Your task to perform on an android device: Open the calendar app, open the side menu, and click the "Day" option Image 0: 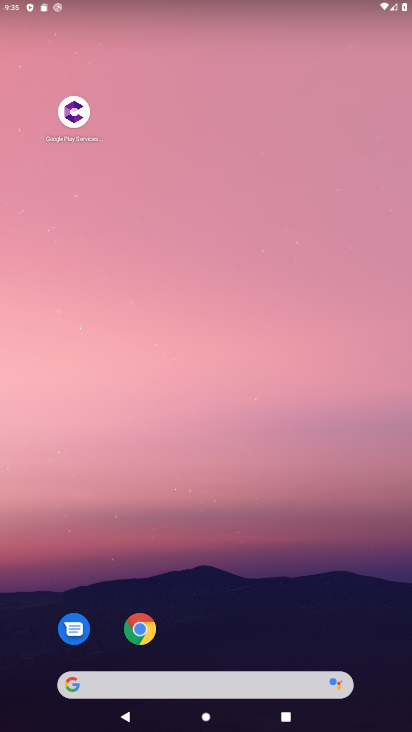
Step 0: drag from (275, 599) to (251, 1)
Your task to perform on an android device: Open the calendar app, open the side menu, and click the "Day" option Image 1: 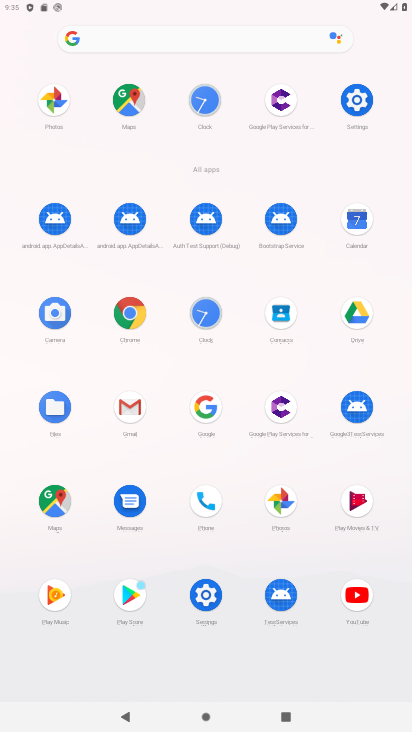
Step 1: click (364, 230)
Your task to perform on an android device: Open the calendar app, open the side menu, and click the "Day" option Image 2: 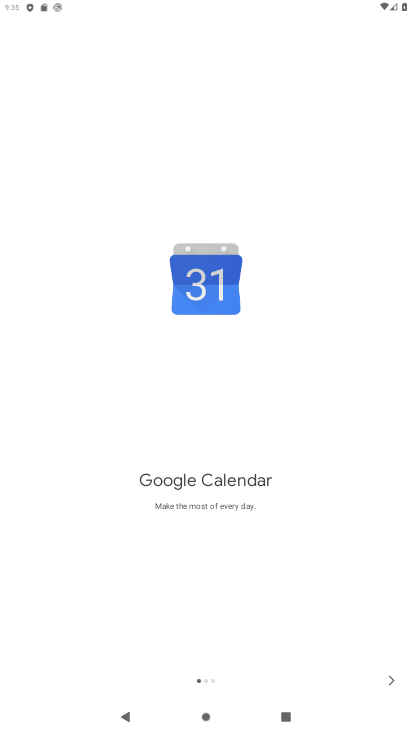
Step 2: click (388, 676)
Your task to perform on an android device: Open the calendar app, open the side menu, and click the "Day" option Image 3: 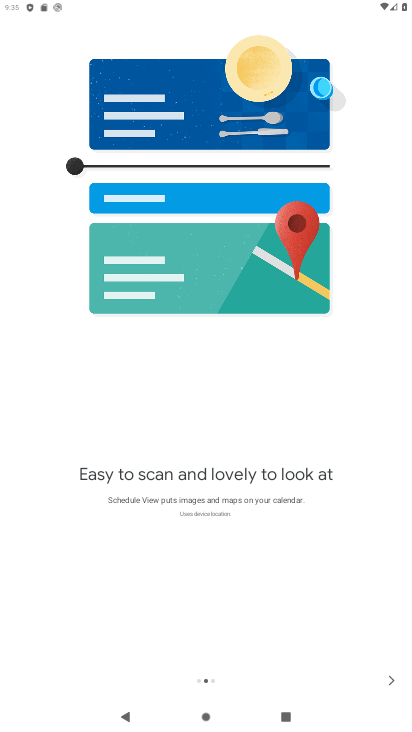
Step 3: click (388, 676)
Your task to perform on an android device: Open the calendar app, open the side menu, and click the "Day" option Image 4: 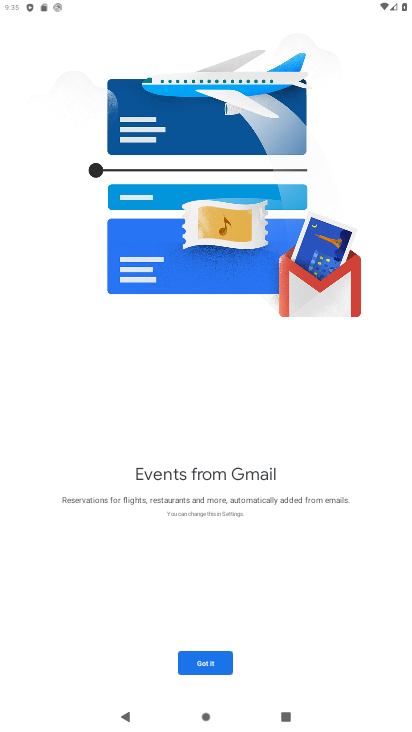
Step 4: click (194, 666)
Your task to perform on an android device: Open the calendar app, open the side menu, and click the "Day" option Image 5: 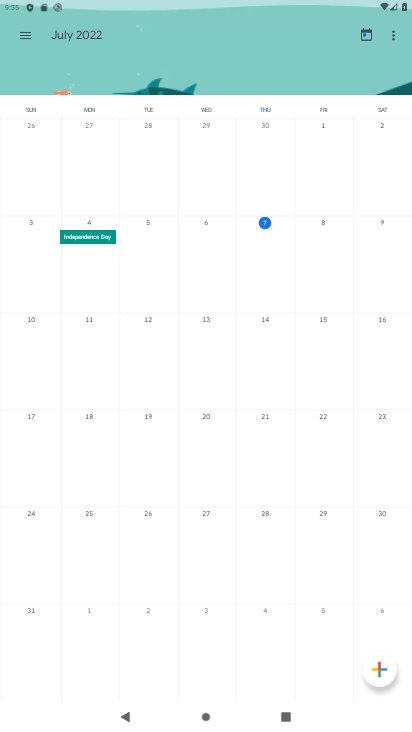
Step 5: click (17, 33)
Your task to perform on an android device: Open the calendar app, open the side menu, and click the "Day" option Image 6: 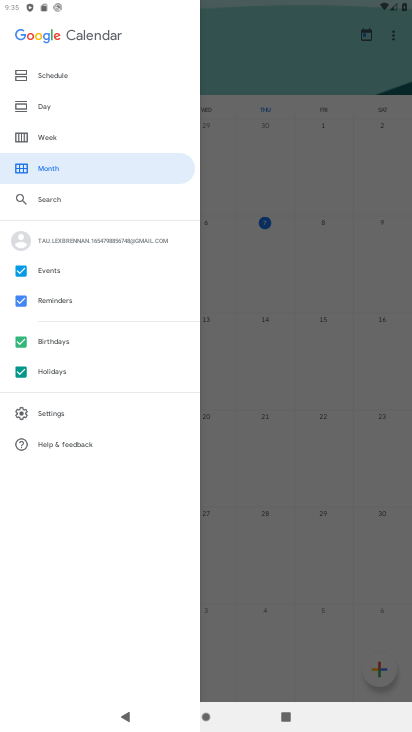
Step 6: click (76, 103)
Your task to perform on an android device: Open the calendar app, open the side menu, and click the "Day" option Image 7: 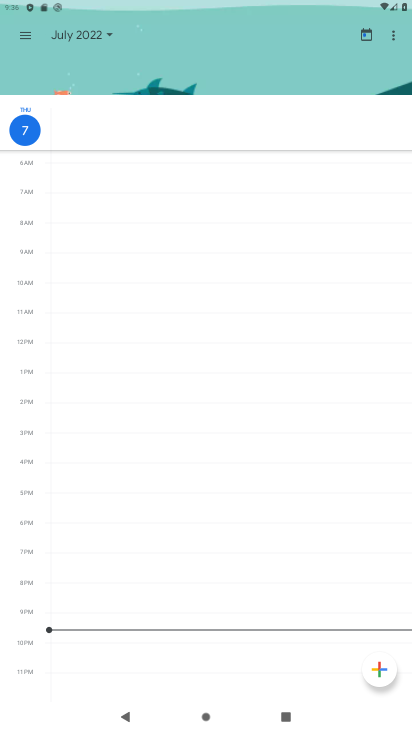
Step 7: task complete